Your task to perform on an android device: Open Youtube and go to the subscriptions tab Image 0: 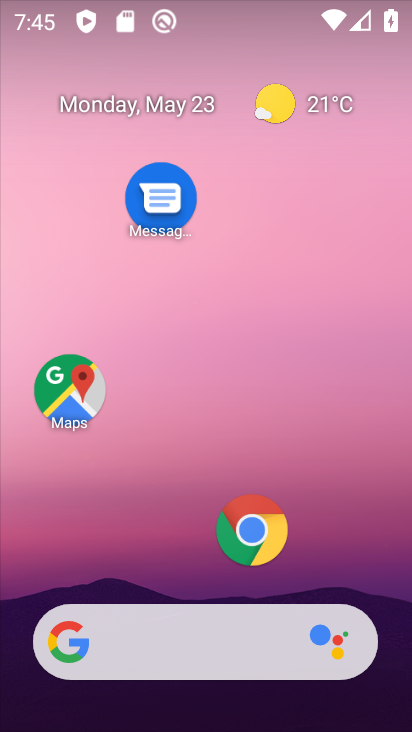
Step 0: drag from (185, 568) to (193, 60)
Your task to perform on an android device: Open Youtube and go to the subscriptions tab Image 1: 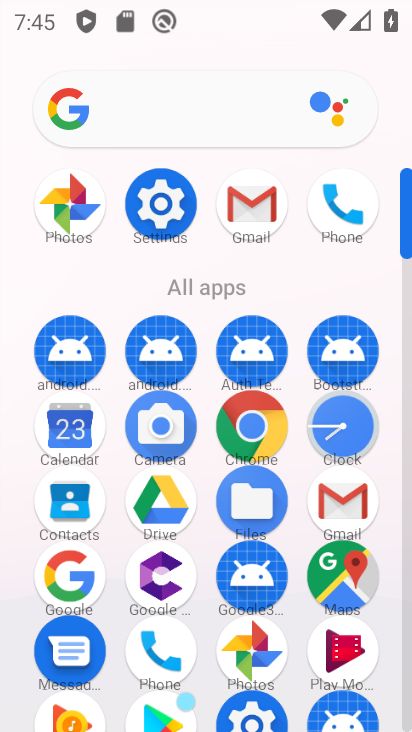
Step 1: drag from (206, 628) to (210, 167)
Your task to perform on an android device: Open Youtube and go to the subscriptions tab Image 2: 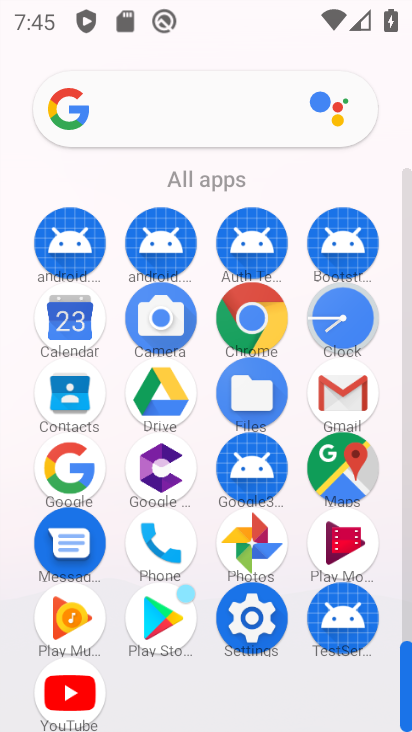
Step 2: click (64, 686)
Your task to perform on an android device: Open Youtube and go to the subscriptions tab Image 3: 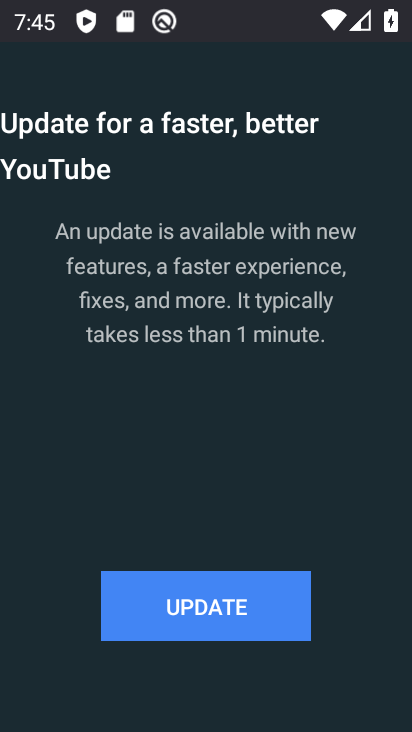
Step 3: click (248, 574)
Your task to perform on an android device: Open Youtube and go to the subscriptions tab Image 4: 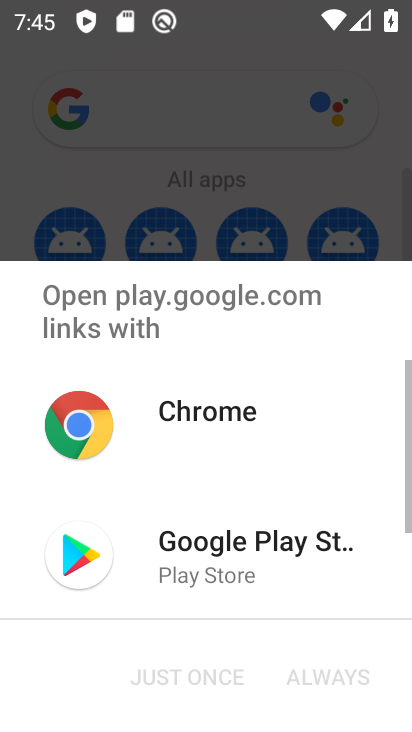
Step 4: click (248, 574)
Your task to perform on an android device: Open Youtube and go to the subscriptions tab Image 5: 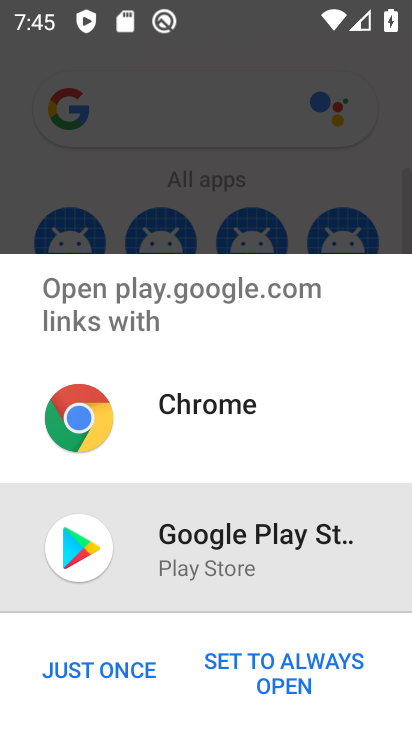
Step 5: click (124, 667)
Your task to perform on an android device: Open Youtube and go to the subscriptions tab Image 6: 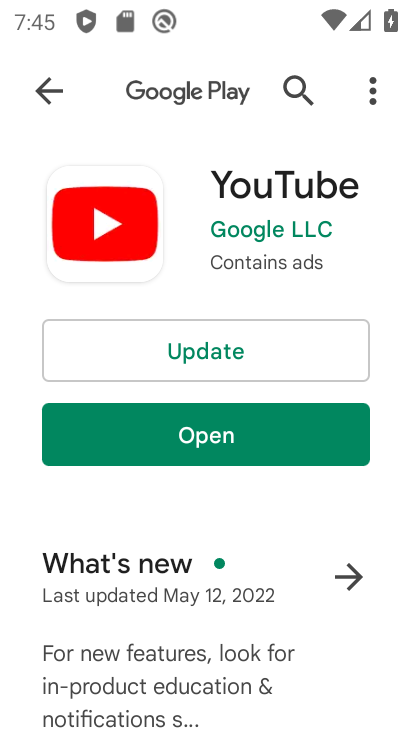
Step 6: click (262, 339)
Your task to perform on an android device: Open Youtube and go to the subscriptions tab Image 7: 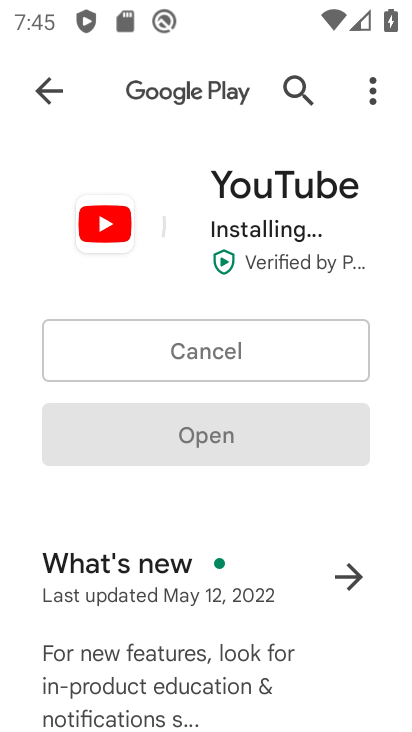
Step 7: click (262, 339)
Your task to perform on an android device: Open Youtube and go to the subscriptions tab Image 8: 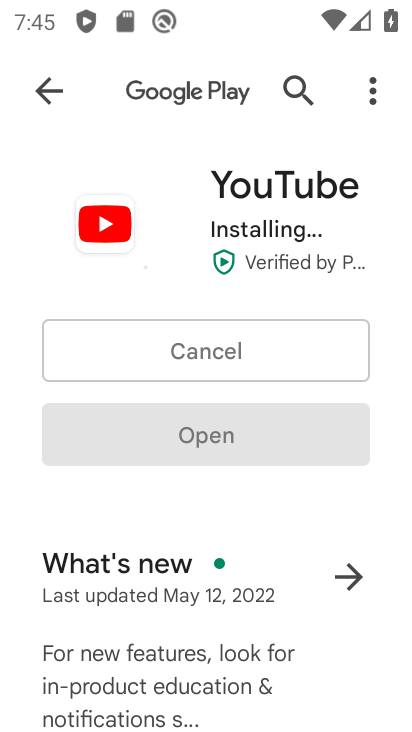
Step 8: click (262, 339)
Your task to perform on an android device: Open Youtube and go to the subscriptions tab Image 9: 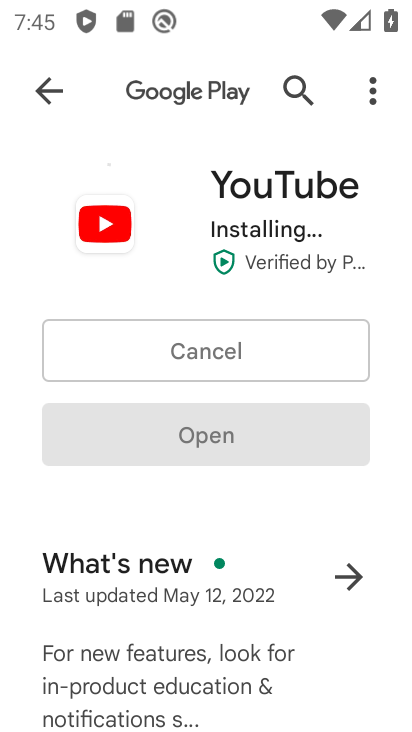
Step 9: click (262, 339)
Your task to perform on an android device: Open Youtube and go to the subscriptions tab Image 10: 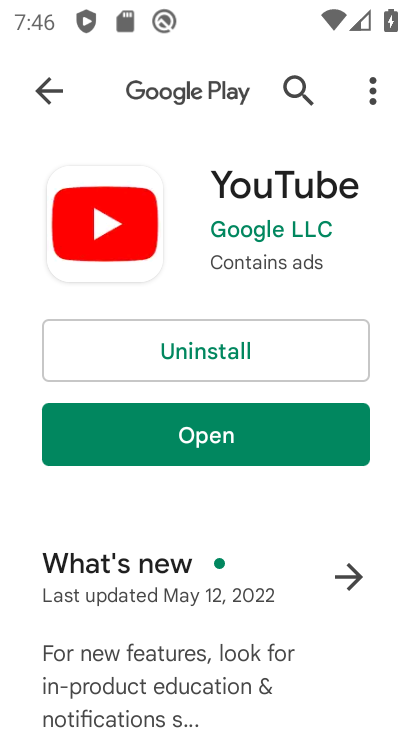
Step 10: click (197, 433)
Your task to perform on an android device: Open Youtube and go to the subscriptions tab Image 11: 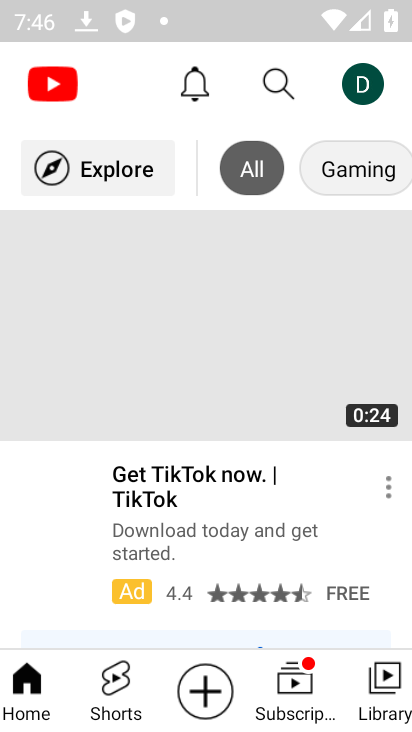
Step 11: click (296, 679)
Your task to perform on an android device: Open Youtube and go to the subscriptions tab Image 12: 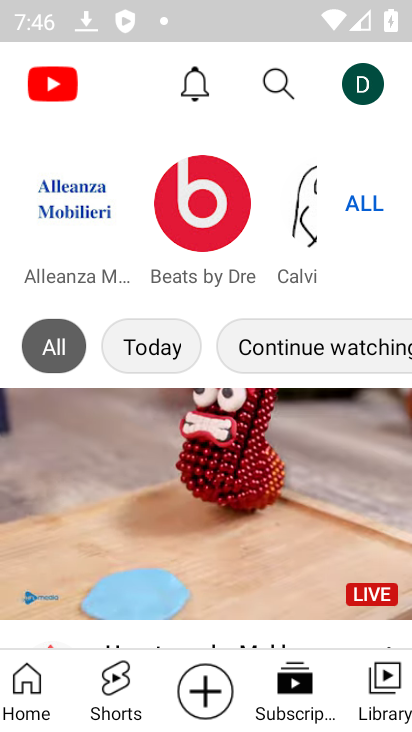
Step 12: task complete